Your task to perform on an android device: Open maps Image 0: 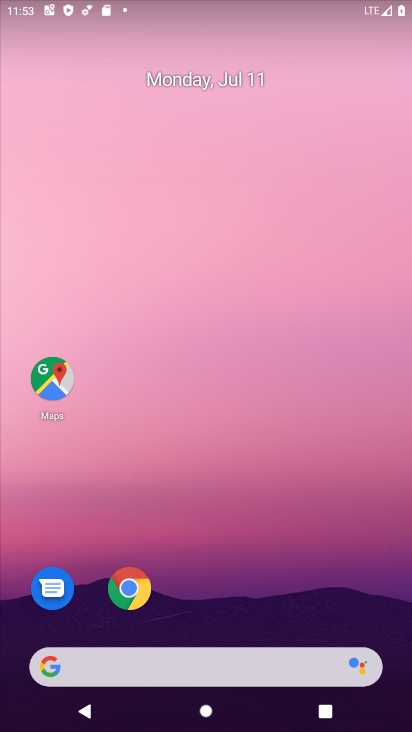
Step 0: click (56, 371)
Your task to perform on an android device: Open maps Image 1: 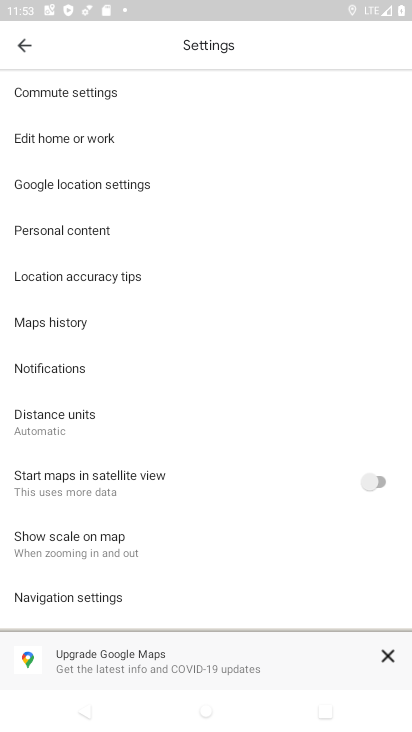
Step 1: click (19, 43)
Your task to perform on an android device: Open maps Image 2: 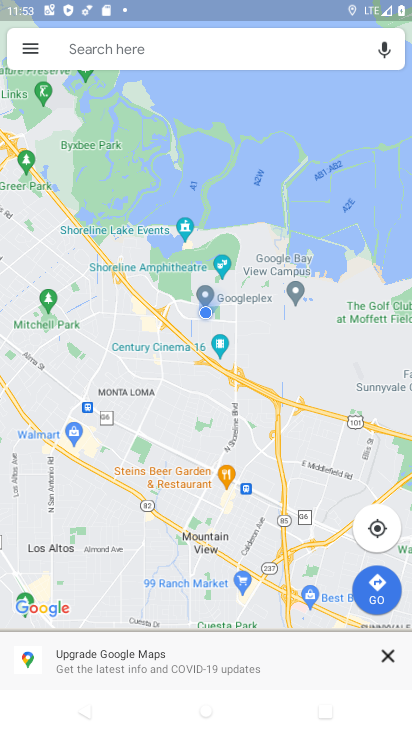
Step 2: task complete